Your task to perform on an android device: open chrome and create a bookmark for the current page Image 0: 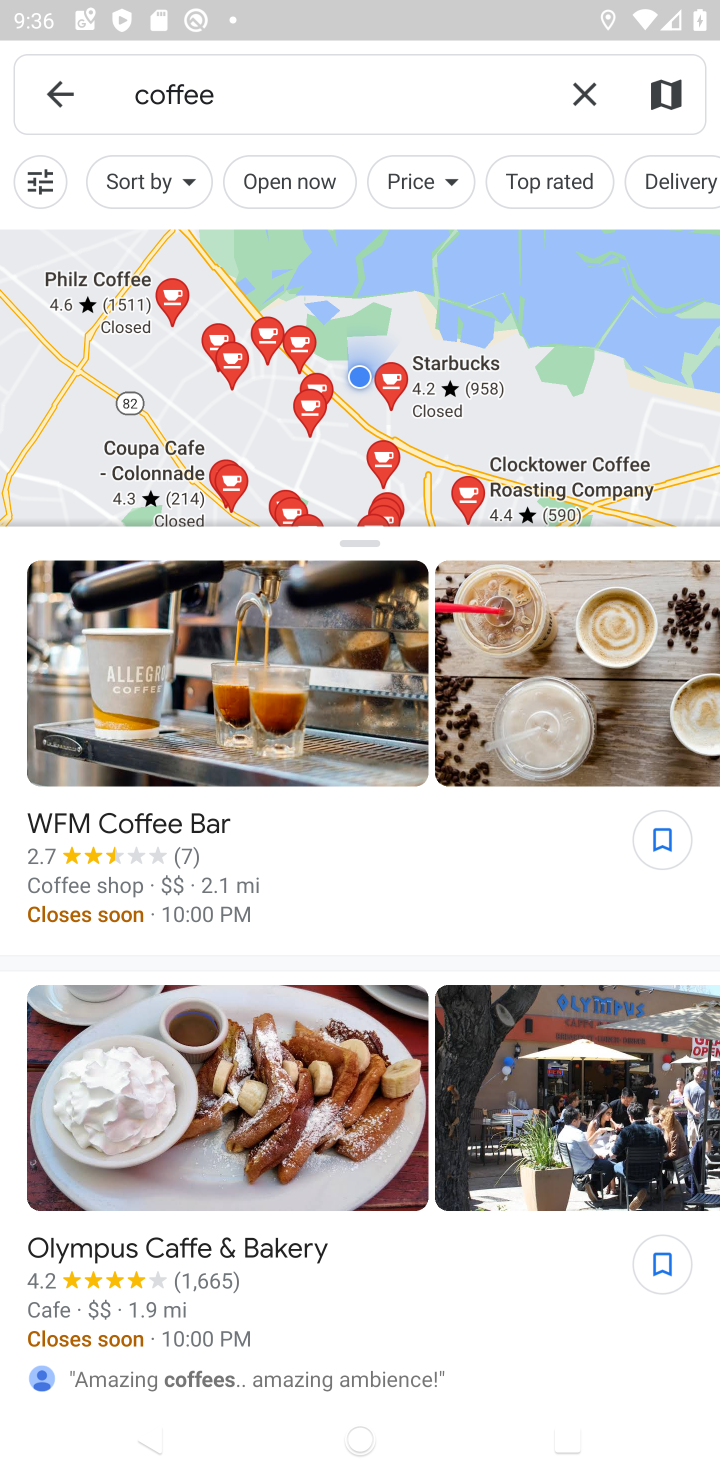
Step 0: press home button
Your task to perform on an android device: open chrome and create a bookmark for the current page Image 1: 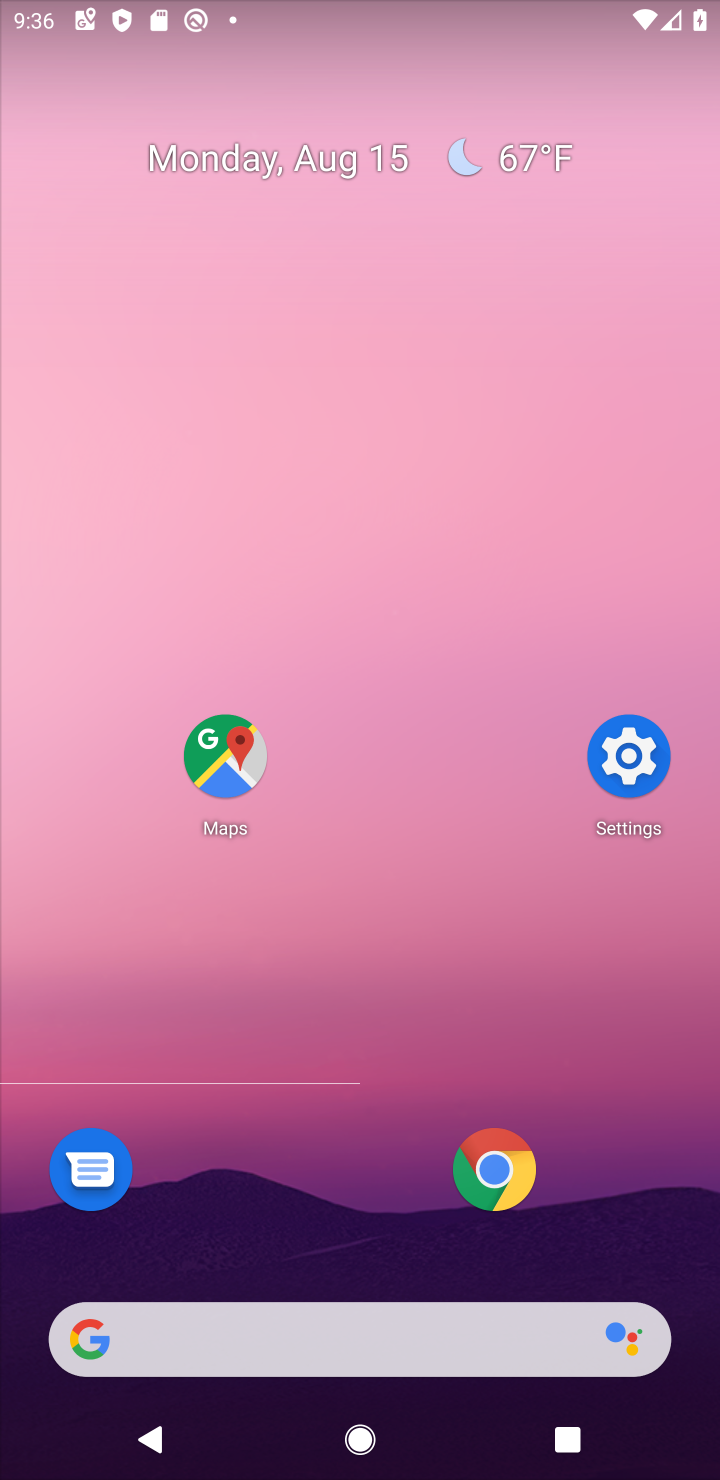
Step 1: click (500, 1176)
Your task to perform on an android device: open chrome and create a bookmark for the current page Image 2: 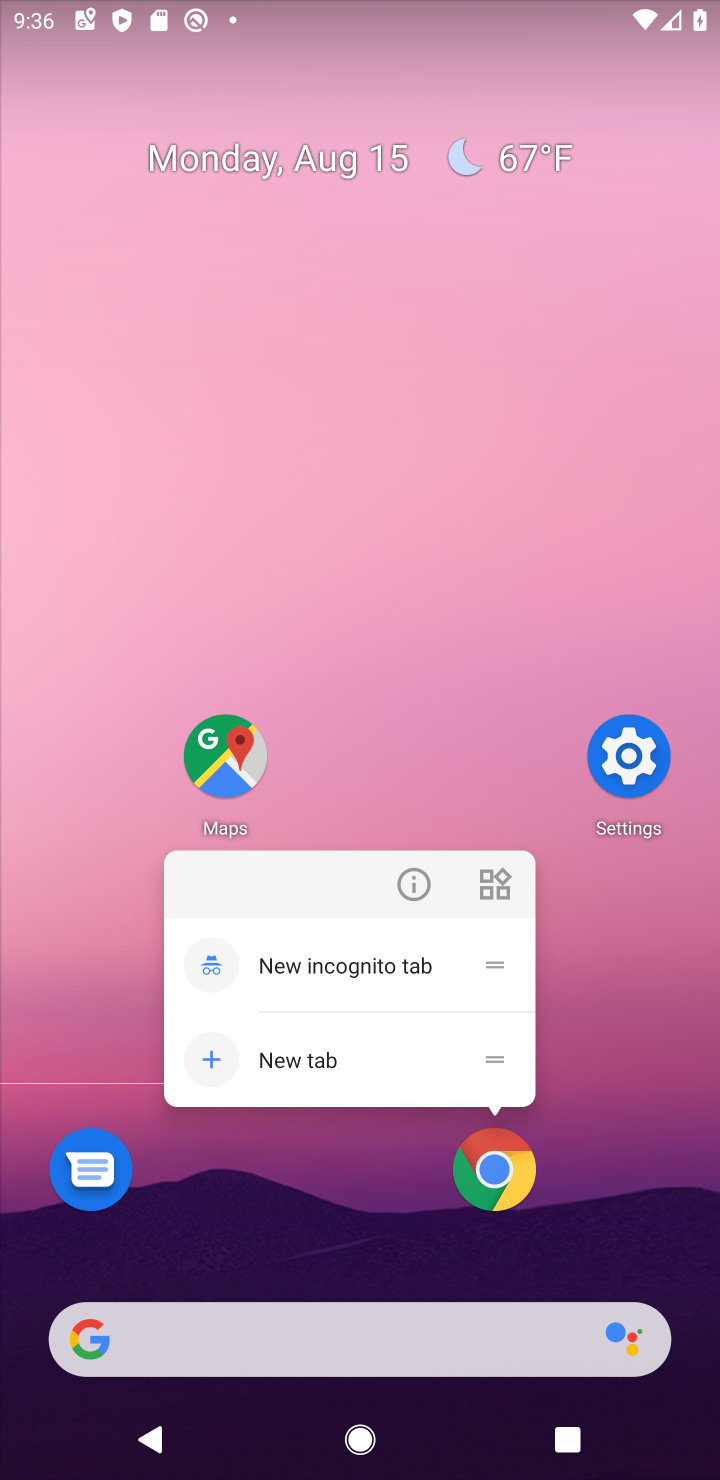
Step 2: click (500, 1178)
Your task to perform on an android device: open chrome and create a bookmark for the current page Image 3: 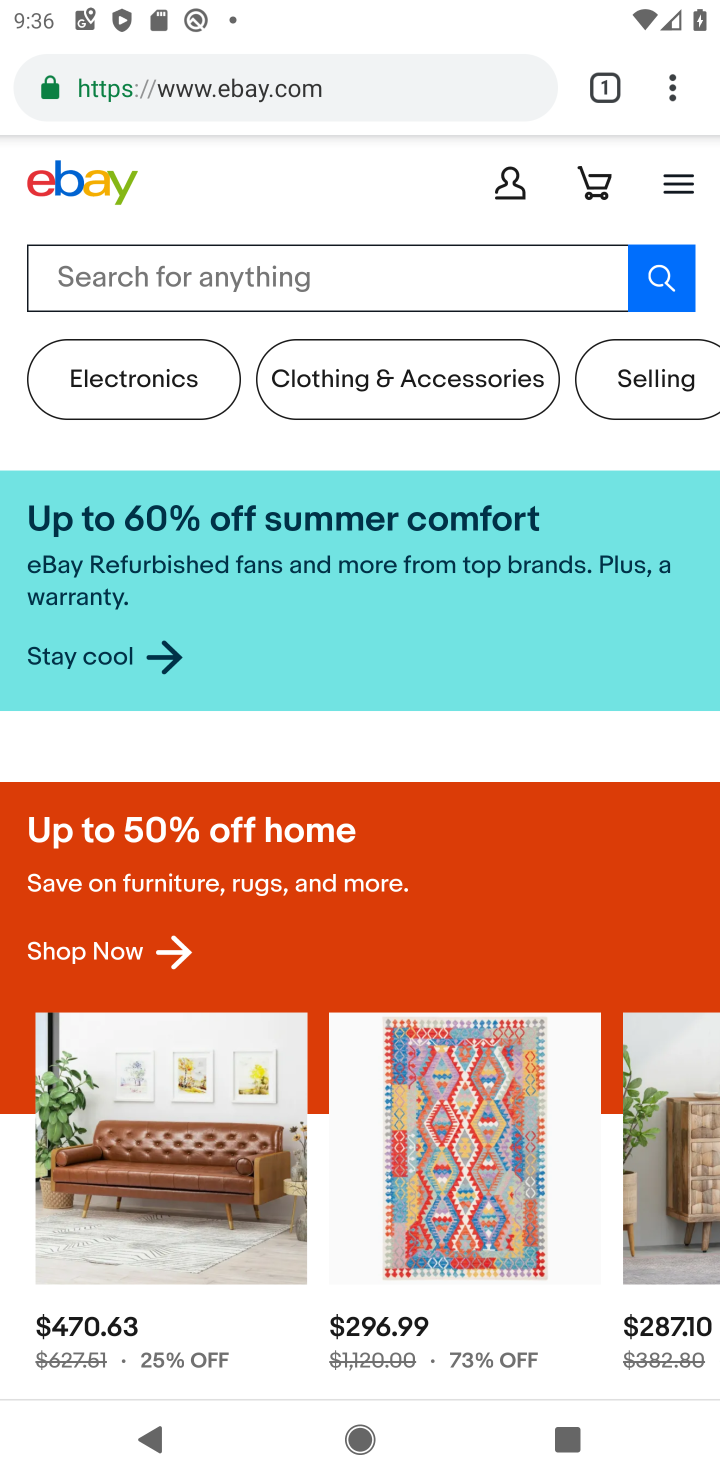
Step 3: click (671, 113)
Your task to perform on an android device: open chrome and create a bookmark for the current page Image 4: 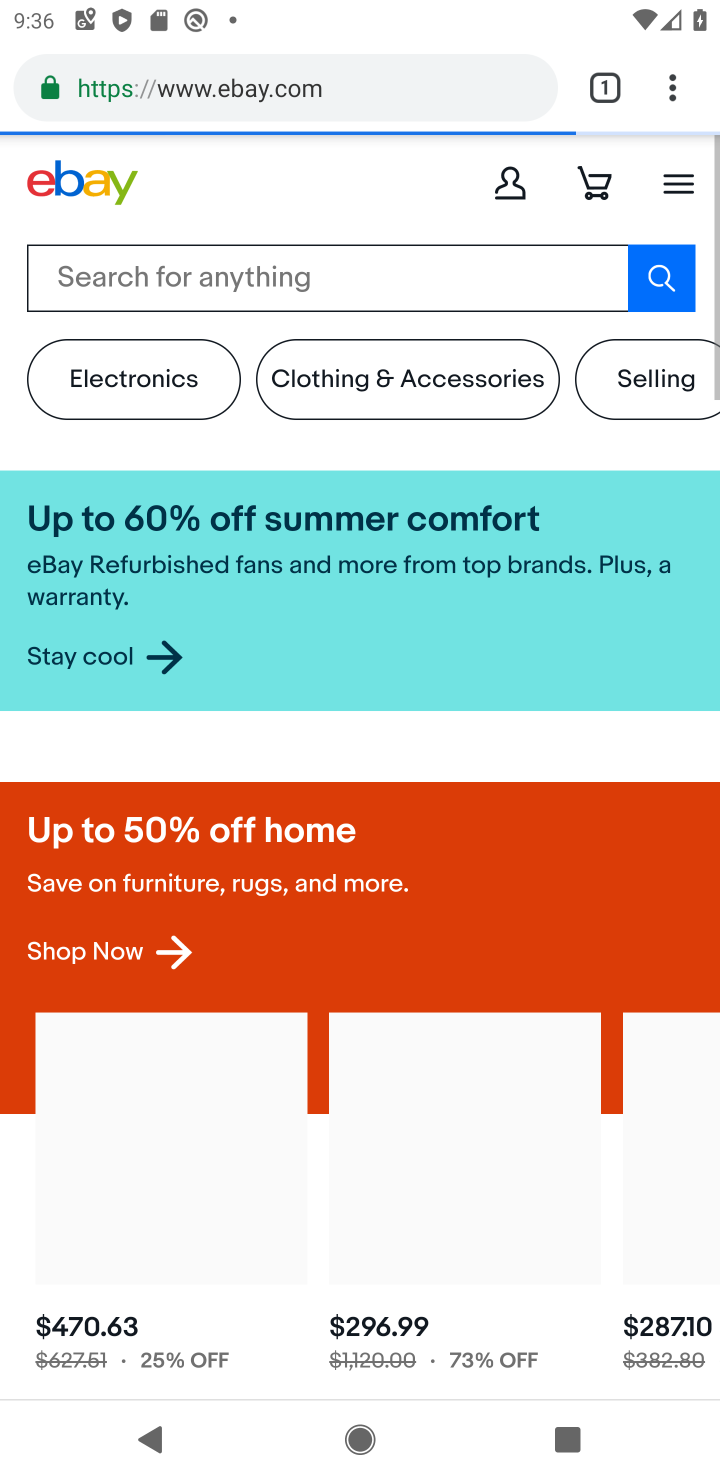
Step 4: click (663, 106)
Your task to perform on an android device: open chrome and create a bookmark for the current page Image 5: 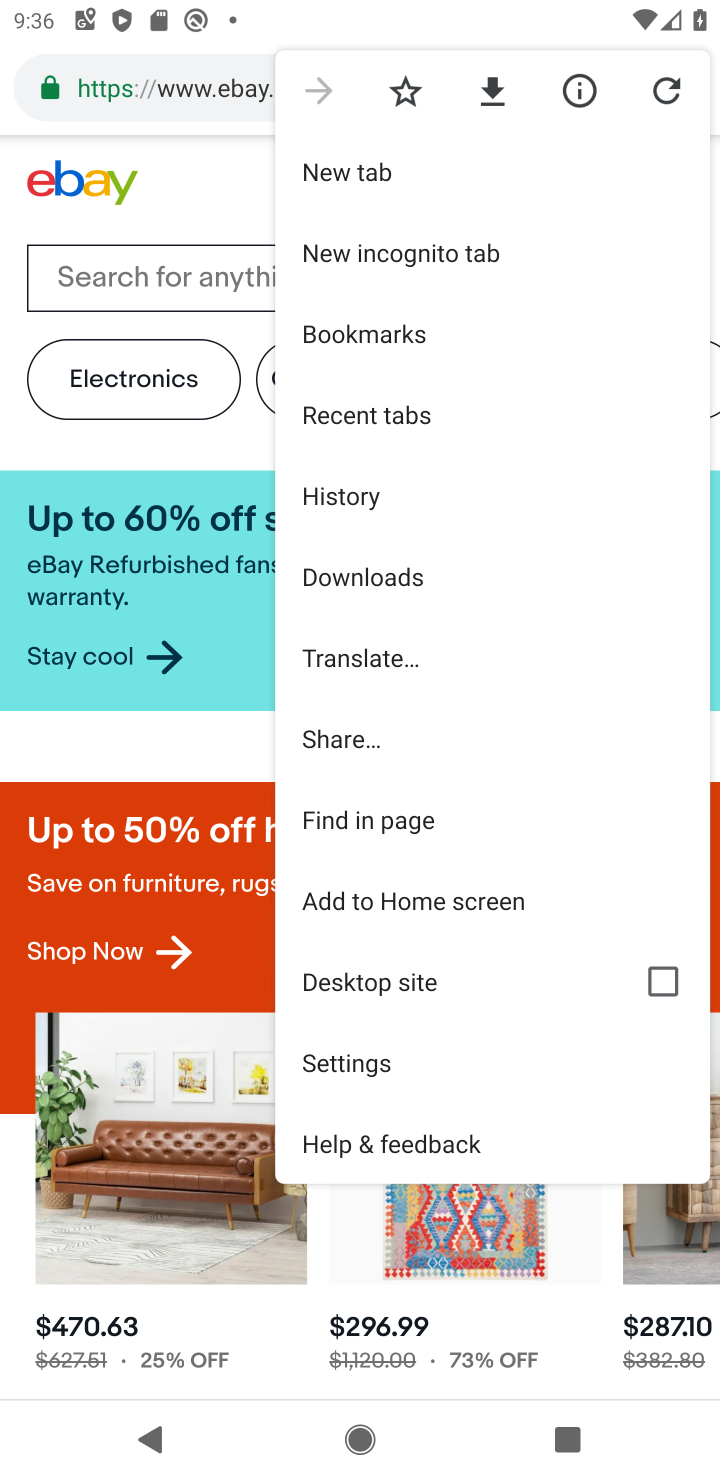
Step 5: click (401, 88)
Your task to perform on an android device: open chrome and create a bookmark for the current page Image 6: 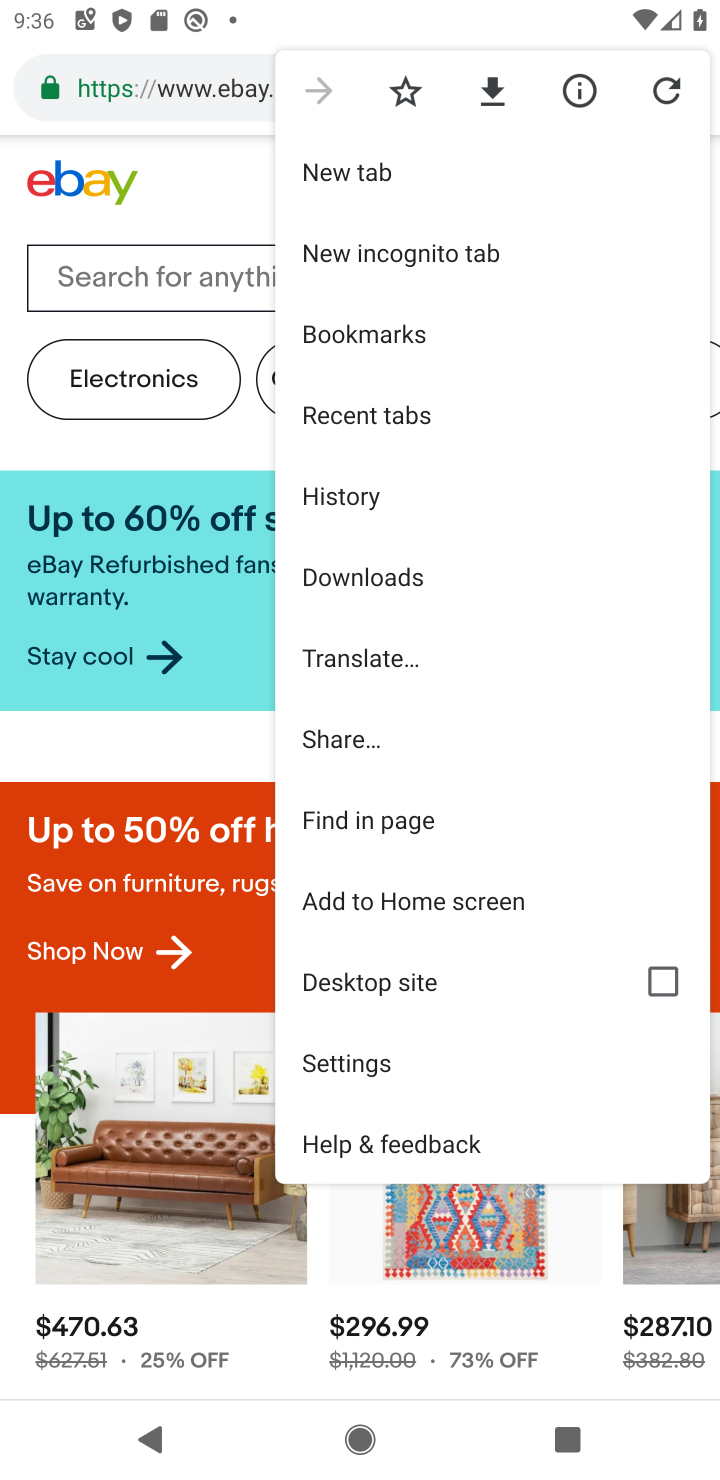
Step 6: click (407, 92)
Your task to perform on an android device: open chrome and create a bookmark for the current page Image 7: 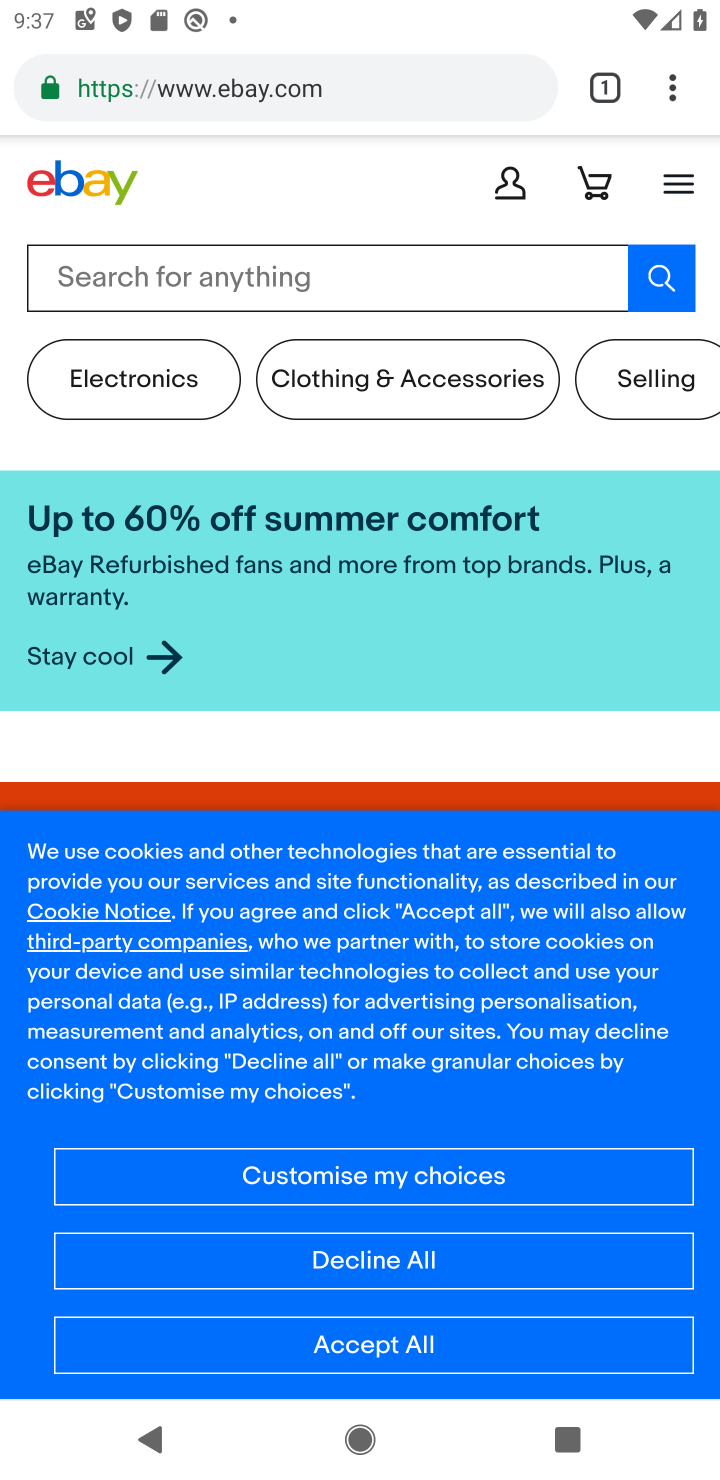
Step 7: task complete